Your task to perform on an android device: Open the calendar and show me this week's events? Image 0: 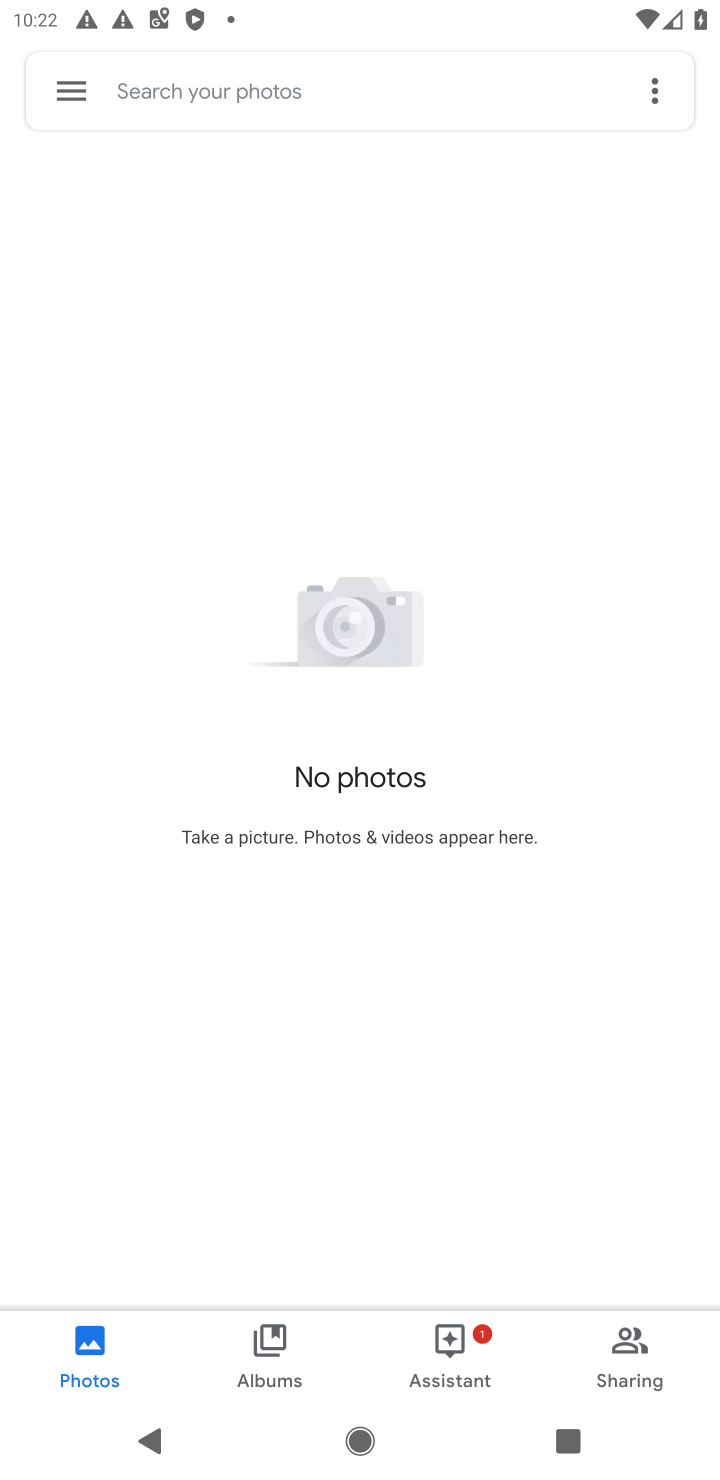
Step 0: press home button
Your task to perform on an android device: Open the calendar and show me this week's events? Image 1: 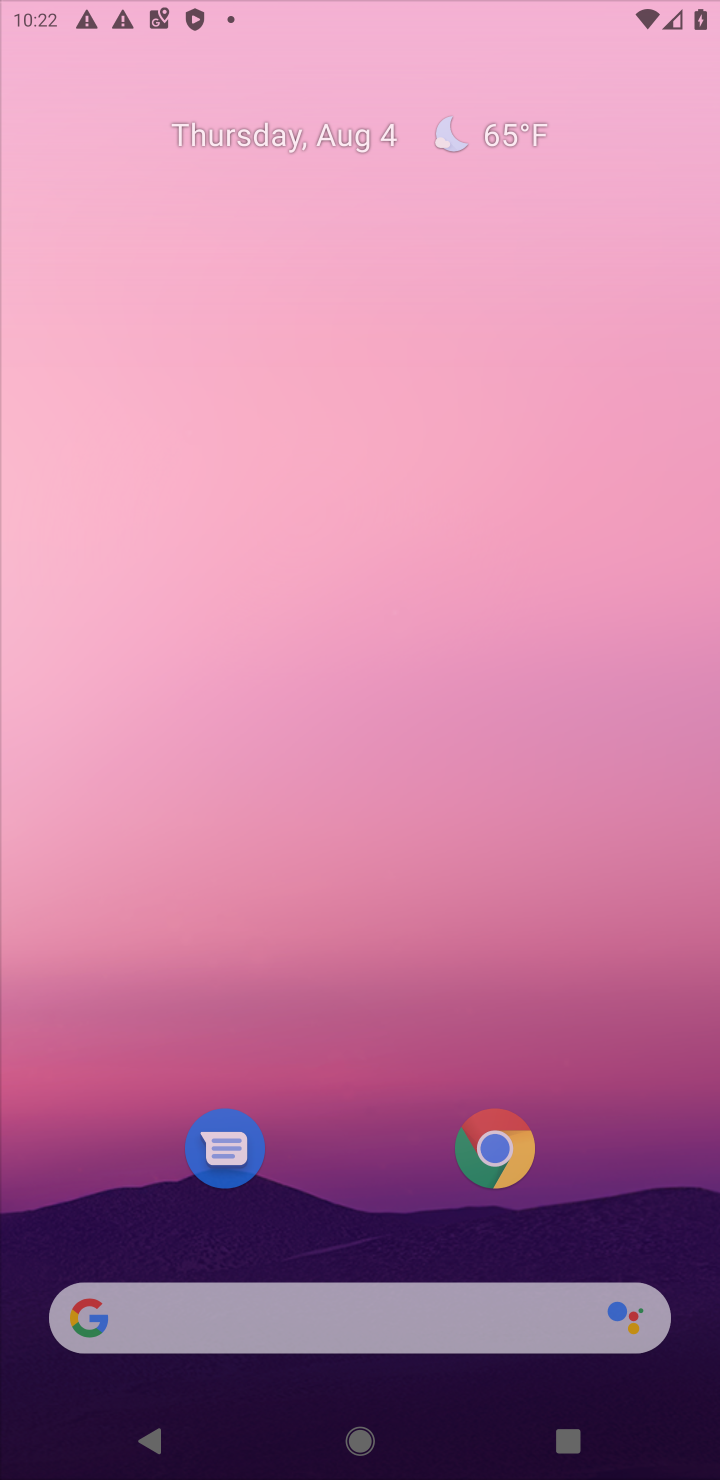
Step 1: drag from (243, 1208) to (390, 82)
Your task to perform on an android device: Open the calendar and show me this week's events? Image 2: 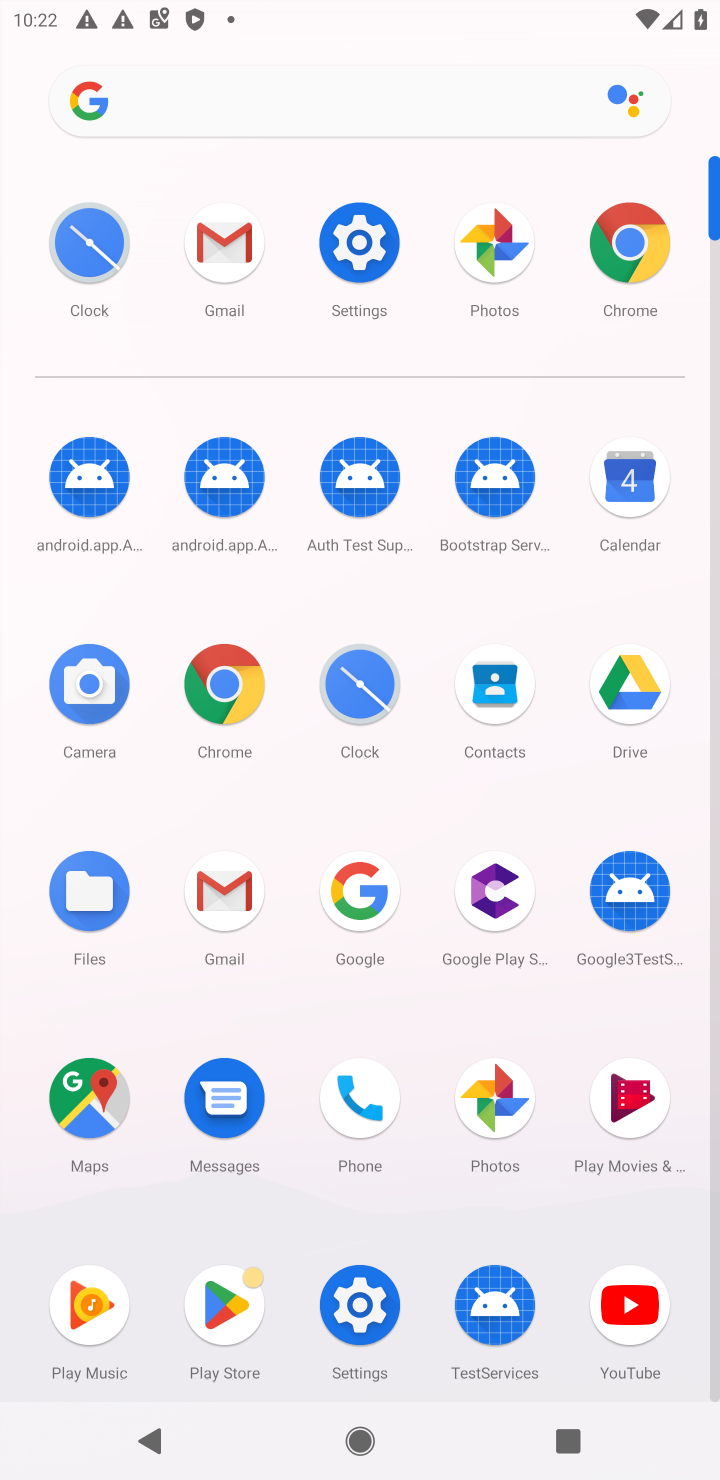
Step 2: click (613, 480)
Your task to perform on an android device: Open the calendar and show me this week's events? Image 3: 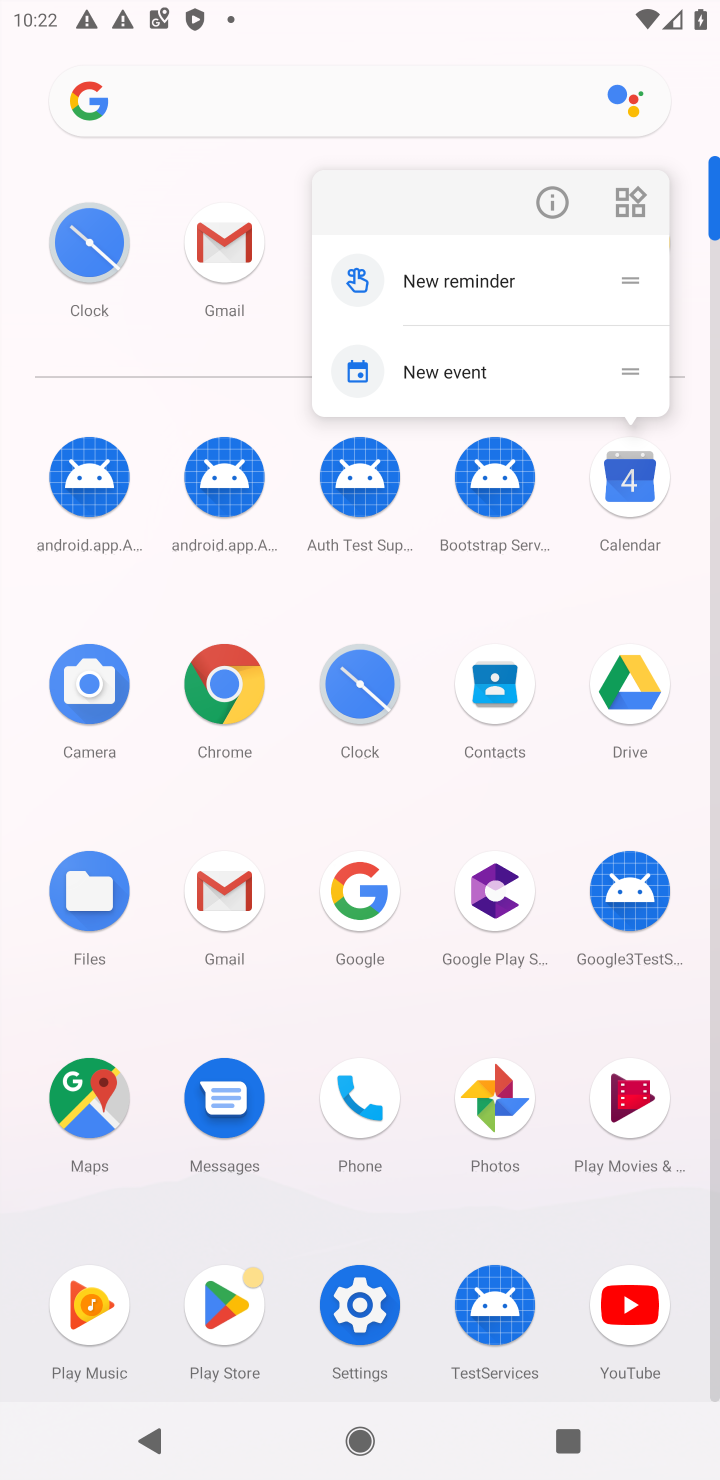
Step 3: click (628, 501)
Your task to perform on an android device: Open the calendar and show me this week's events? Image 4: 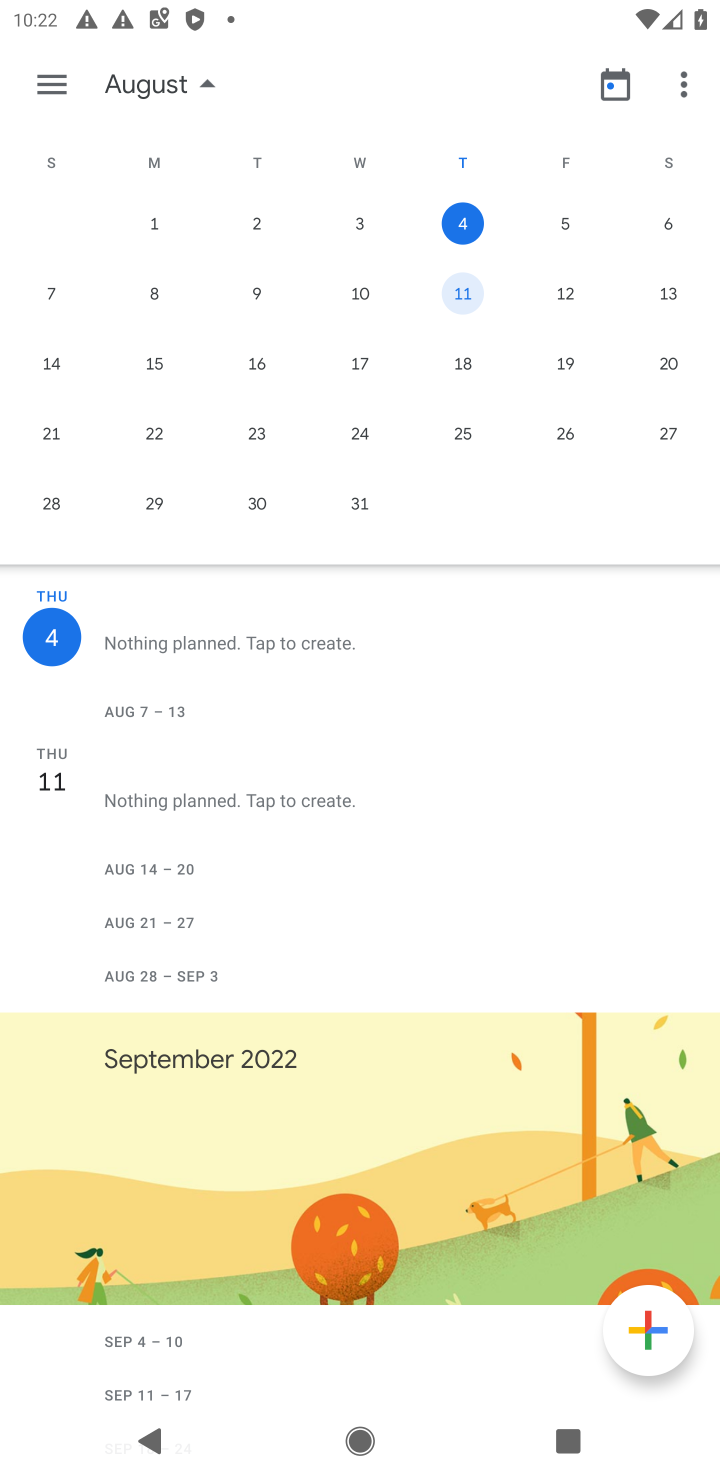
Step 4: click (628, 495)
Your task to perform on an android device: Open the calendar and show me this week's events? Image 5: 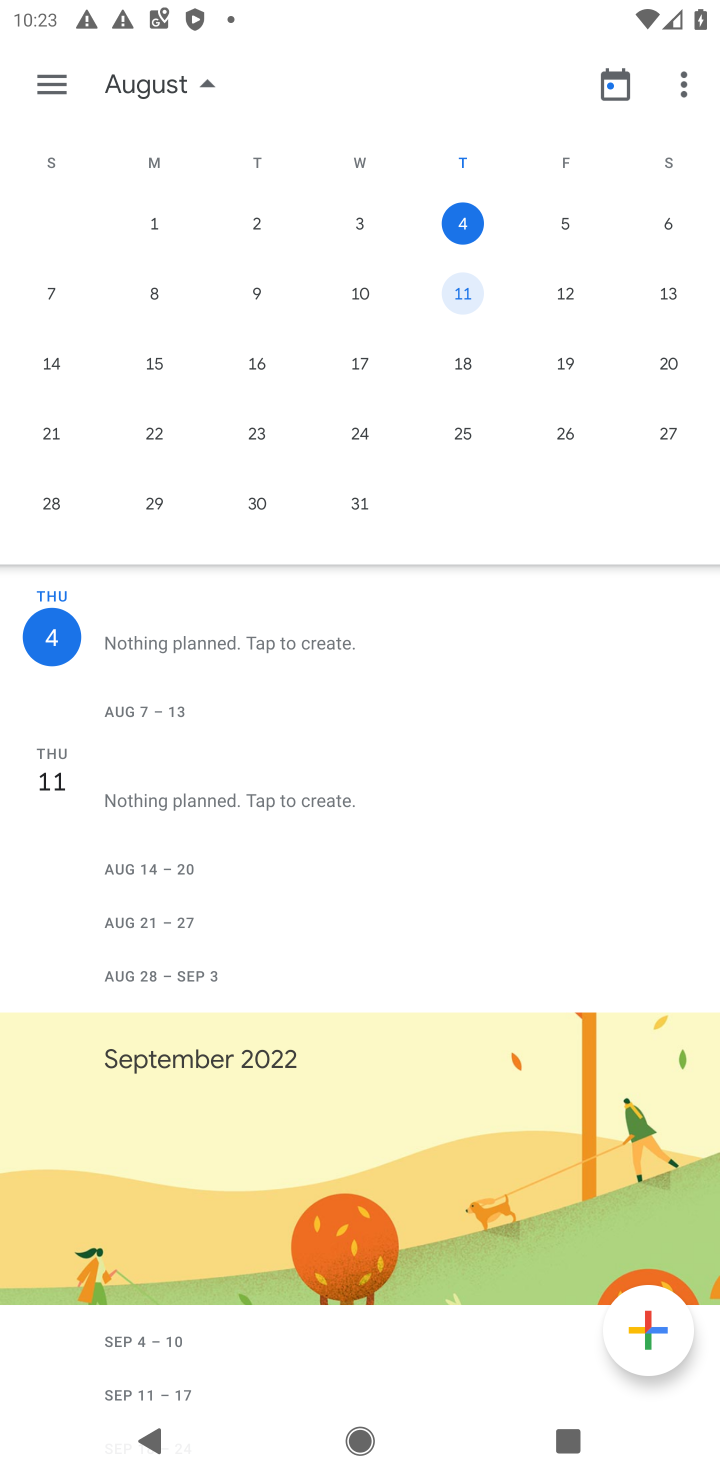
Step 5: task complete